Your task to perform on an android device: Go to Google maps Image 0: 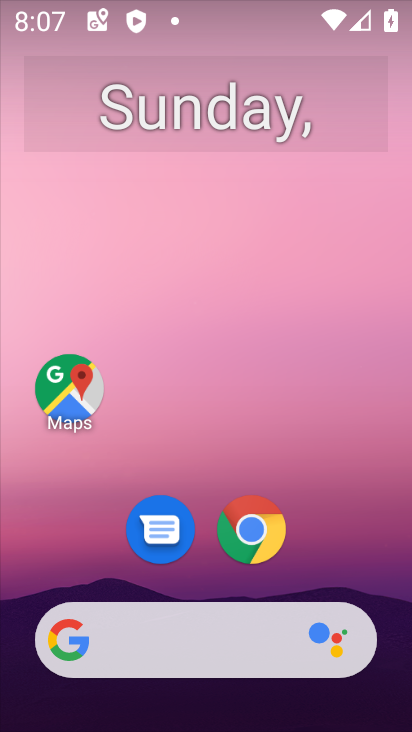
Step 0: drag from (359, 546) to (351, 147)
Your task to perform on an android device: Go to Google maps Image 1: 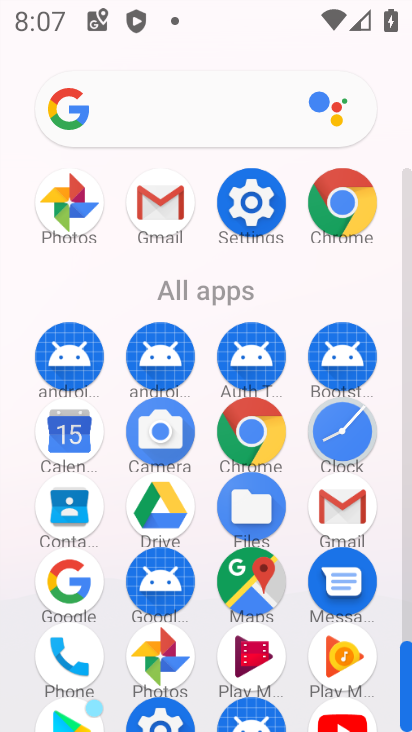
Step 1: click (247, 579)
Your task to perform on an android device: Go to Google maps Image 2: 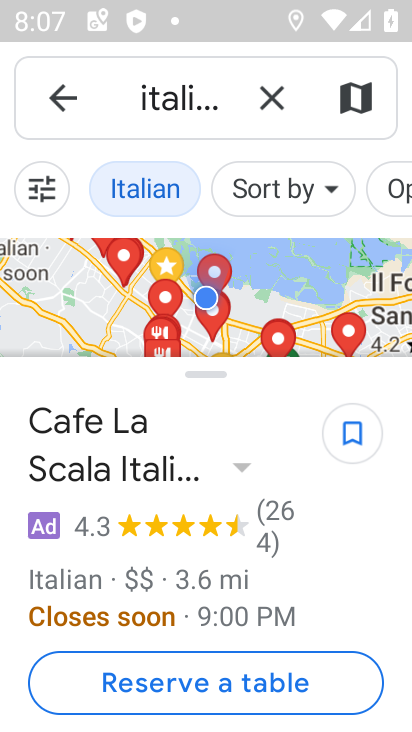
Step 2: task complete